Your task to perform on an android device: turn off smart reply in the gmail app Image 0: 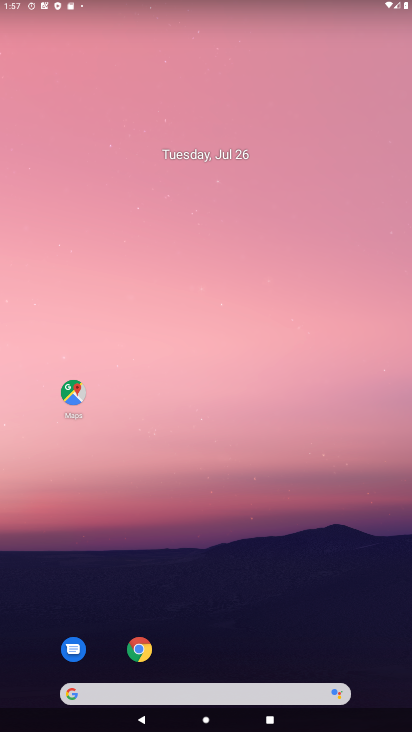
Step 0: drag from (247, 354) to (191, 57)
Your task to perform on an android device: turn off smart reply in the gmail app Image 1: 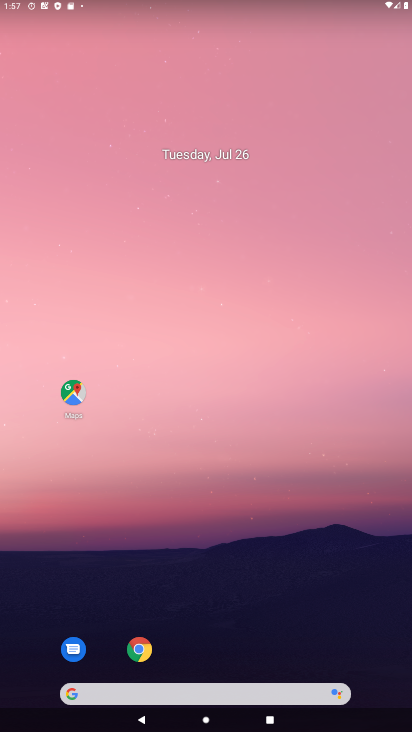
Step 1: drag from (306, 574) to (231, 32)
Your task to perform on an android device: turn off smart reply in the gmail app Image 2: 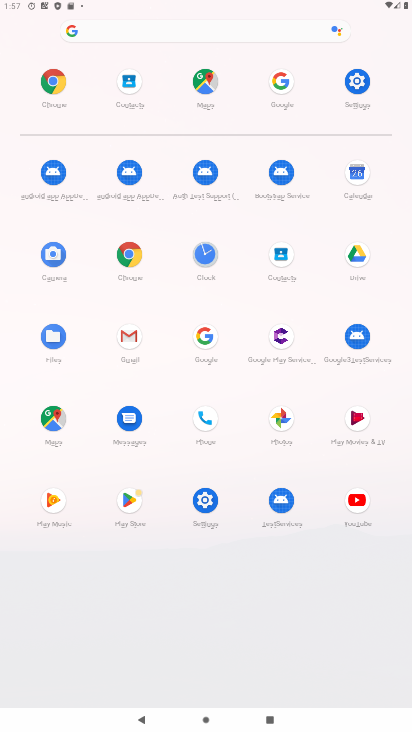
Step 2: click (212, 500)
Your task to perform on an android device: turn off smart reply in the gmail app Image 3: 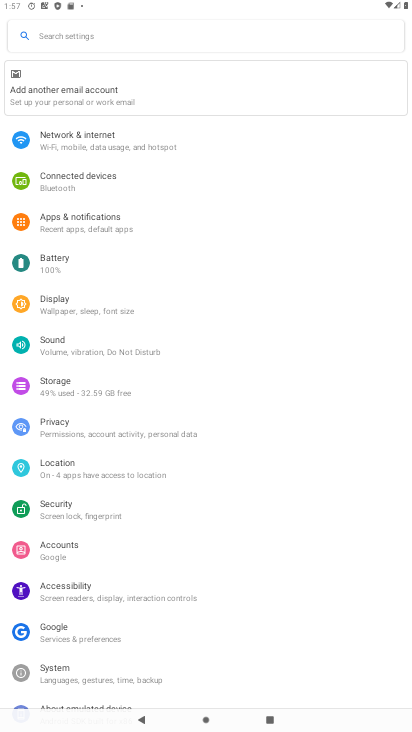
Step 3: click (69, 314)
Your task to perform on an android device: turn off smart reply in the gmail app Image 4: 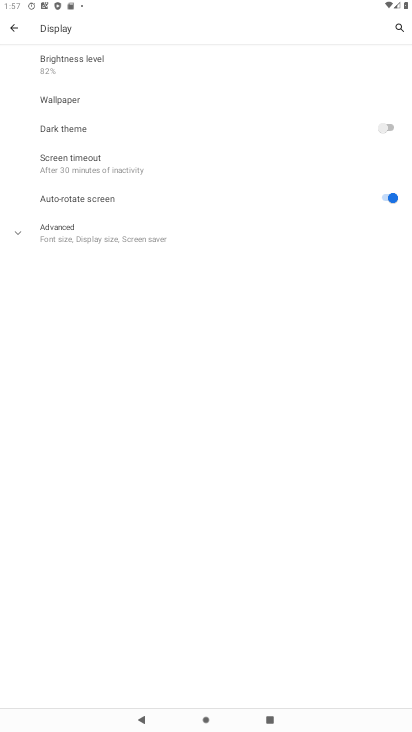
Step 4: click (85, 230)
Your task to perform on an android device: turn off smart reply in the gmail app Image 5: 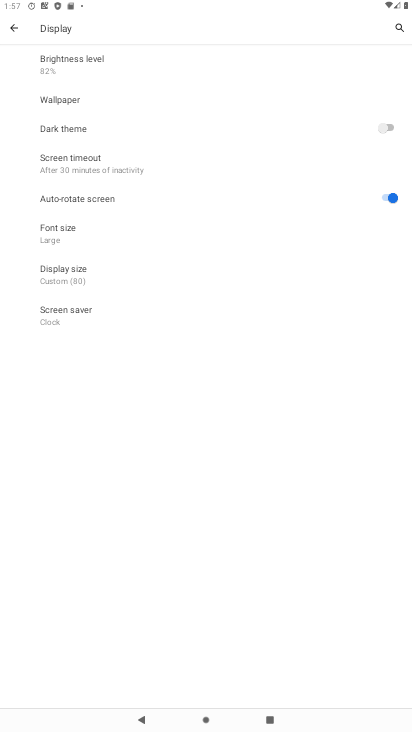
Step 5: click (85, 230)
Your task to perform on an android device: turn off smart reply in the gmail app Image 6: 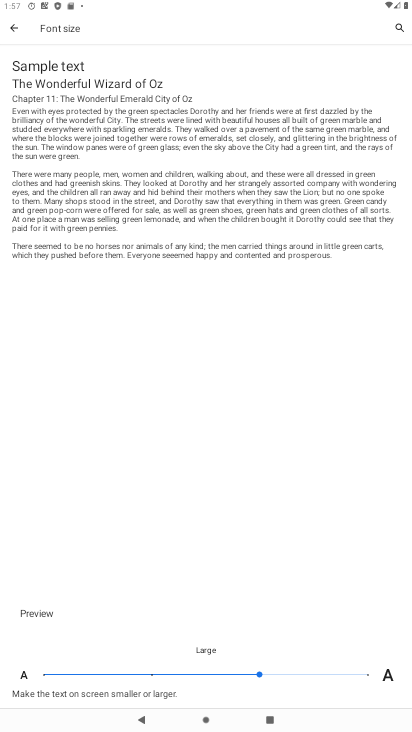
Step 6: click (369, 677)
Your task to perform on an android device: turn off smart reply in the gmail app Image 7: 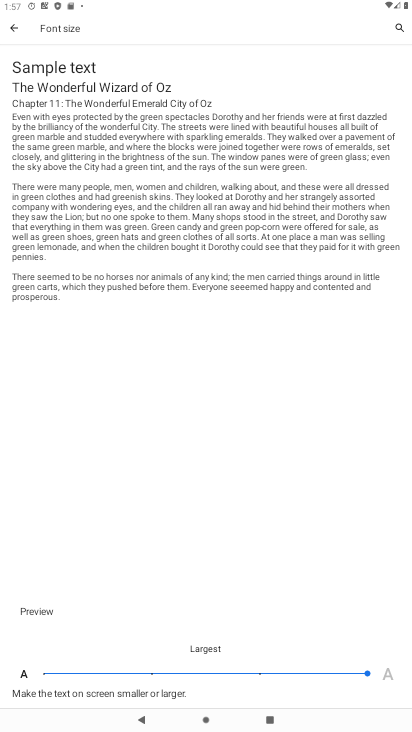
Step 7: task complete